Your task to perform on an android device: Clear all items from cart on target.com. Add "usb-c to usb-a" to the cart on target.com, then select checkout. Image 0: 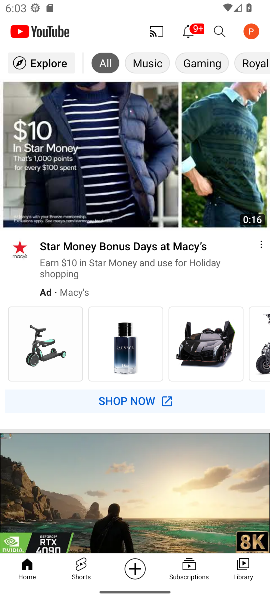
Step 0: press home button
Your task to perform on an android device: Clear all items from cart on target.com. Add "usb-c to usb-a" to the cart on target.com, then select checkout. Image 1: 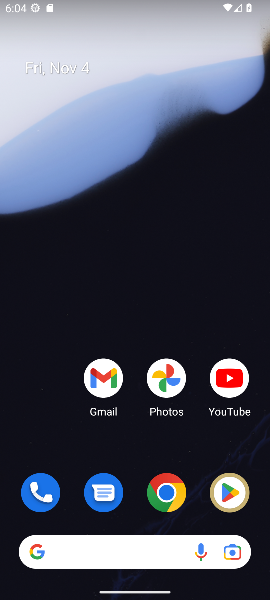
Step 1: drag from (131, 459) to (100, 16)
Your task to perform on an android device: Clear all items from cart on target.com. Add "usb-c to usb-a" to the cart on target.com, then select checkout. Image 2: 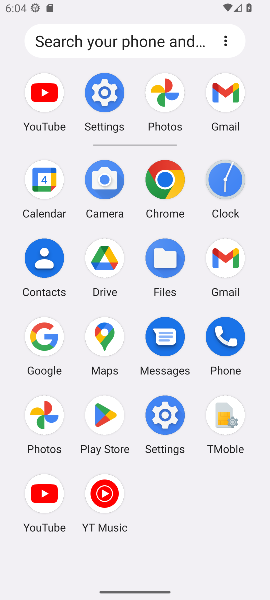
Step 2: click (155, 176)
Your task to perform on an android device: Clear all items from cart on target.com. Add "usb-c to usb-a" to the cart on target.com, then select checkout. Image 3: 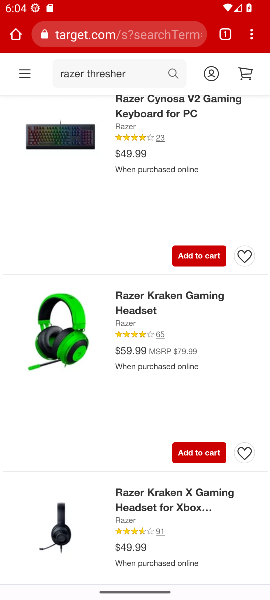
Step 3: click (158, 32)
Your task to perform on an android device: Clear all items from cart on target.com. Add "usb-c to usb-a" to the cart on target.com, then select checkout. Image 4: 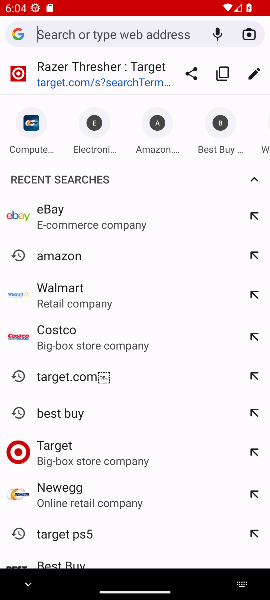
Step 4: press back button
Your task to perform on an android device: Clear all items from cart on target.com. Add "usb-c to usb-a" to the cart on target.com, then select checkout. Image 5: 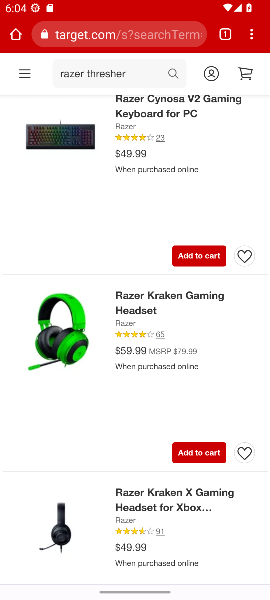
Step 5: click (256, 75)
Your task to perform on an android device: Clear all items from cart on target.com. Add "usb-c to usb-a" to the cart on target.com, then select checkout. Image 6: 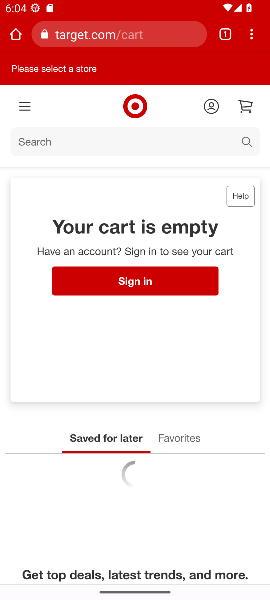
Step 6: click (124, 143)
Your task to perform on an android device: Clear all items from cart on target.com. Add "usb-c to usb-a" to the cart on target.com, then select checkout. Image 7: 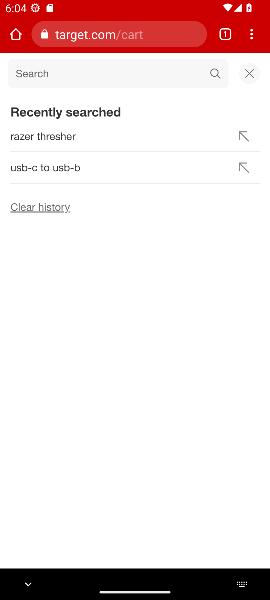
Step 7: type "usb-c to usb-a"
Your task to perform on an android device: Clear all items from cart on target.com. Add "usb-c to usb-a" to the cart on target.com, then select checkout. Image 8: 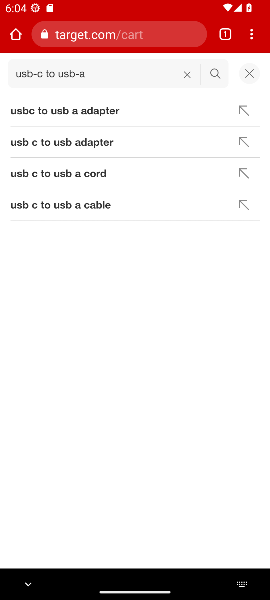
Step 8: press enter
Your task to perform on an android device: Clear all items from cart on target.com. Add "usb-c to usb-a" to the cart on target.com, then select checkout. Image 9: 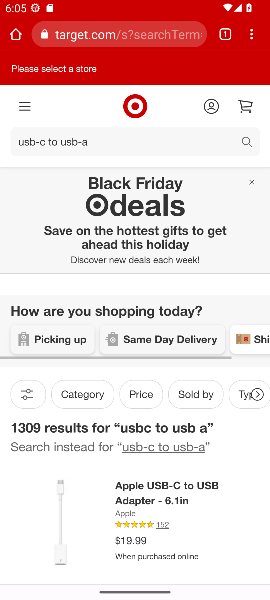
Step 9: drag from (191, 480) to (184, 255)
Your task to perform on an android device: Clear all items from cart on target.com. Add "usb-c to usb-a" to the cart on target.com, then select checkout. Image 10: 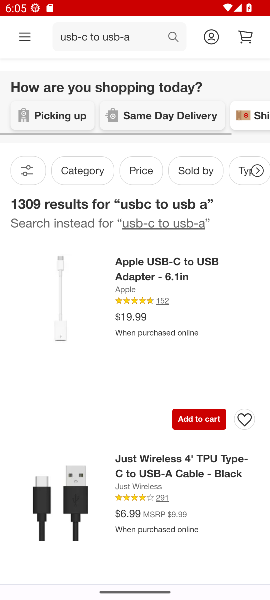
Step 10: drag from (138, 369) to (138, 264)
Your task to perform on an android device: Clear all items from cart on target.com. Add "usb-c to usb-a" to the cart on target.com, then select checkout. Image 11: 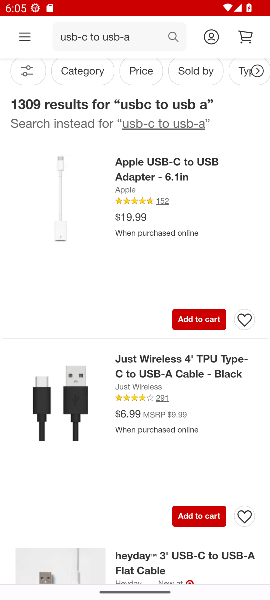
Step 11: drag from (104, 469) to (127, 539)
Your task to perform on an android device: Clear all items from cart on target.com. Add "usb-c to usb-a" to the cart on target.com, then select checkout. Image 12: 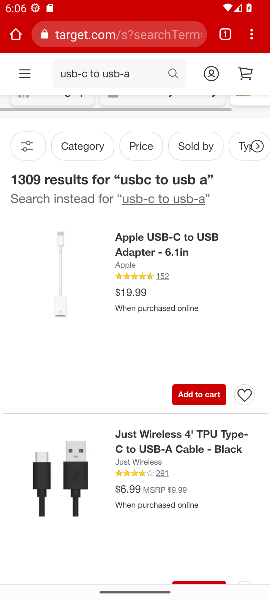
Step 12: drag from (65, 461) to (80, 319)
Your task to perform on an android device: Clear all items from cart on target.com. Add "usb-c to usb-a" to the cart on target.com, then select checkout. Image 13: 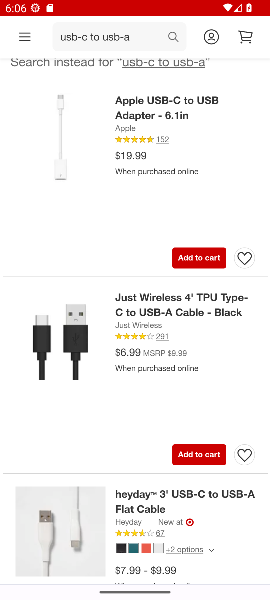
Step 13: click (197, 453)
Your task to perform on an android device: Clear all items from cart on target.com. Add "usb-c to usb-a" to the cart on target.com, then select checkout. Image 14: 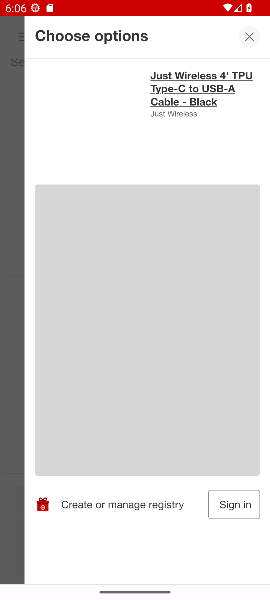
Step 14: click (249, 37)
Your task to perform on an android device: Clear all items from cart on target.com. Add "usb-c to usb-a" to the cart on target.com, then select checkout. Image 15: 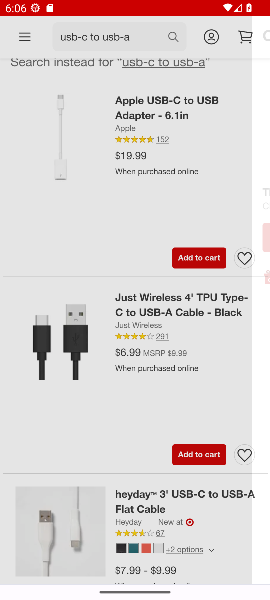
Step 15: click (197, 457)
Your task to perform on an android device: Clear all items from cart on target.com. Add "usb-c to usb-a" to the cart on target.com, then select checkout. Image 16: 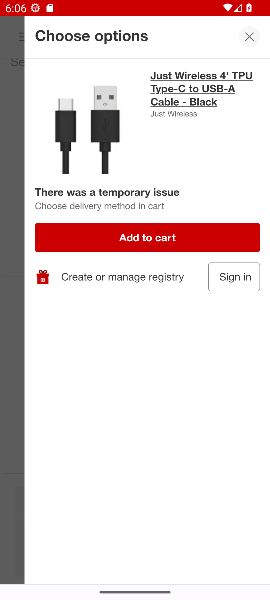
Step 16: click (171, 233)
Your task to perform on an android device: Clear all items from cart on target.com. Add "usb-c to usb-a" to the cart on target.com, then select checkout. Image 17: 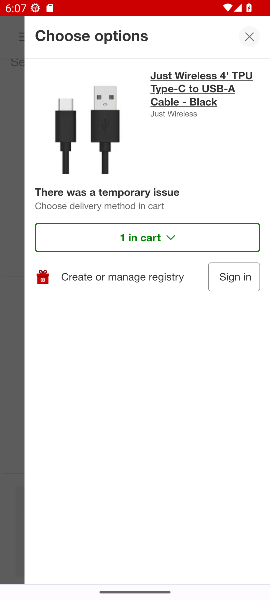
Step 17: task complete